Your task to perform on an android device: toggle sleep mode Image 0: 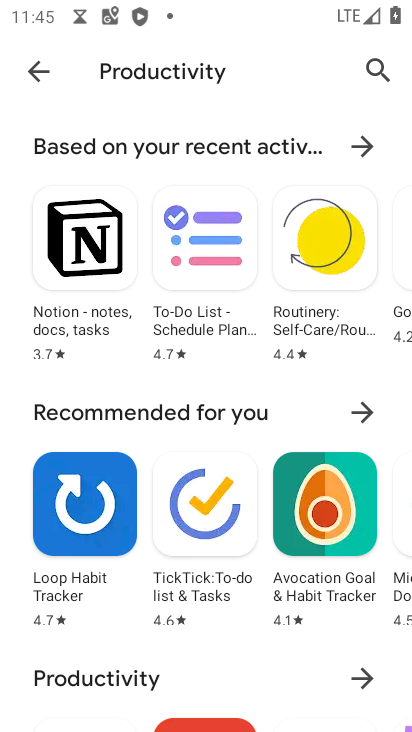
Step 0: press home button
Your task to perform on an android device: toggle sleep mode Image 1: 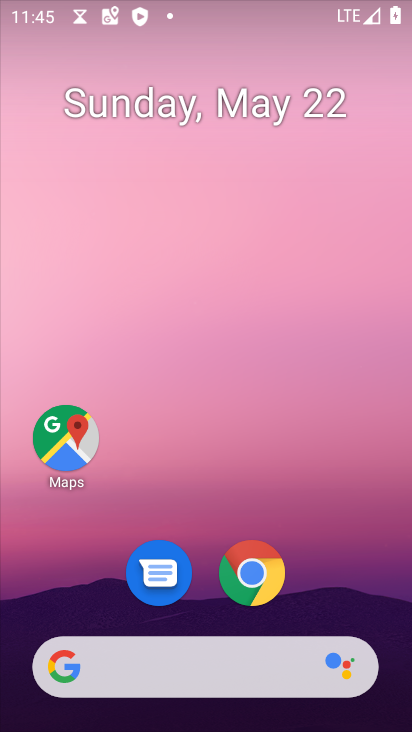
Step 1: drag from (193, 679) to (337, 153)
Your task to perform on an android device: toggle sleep mode Image 2: 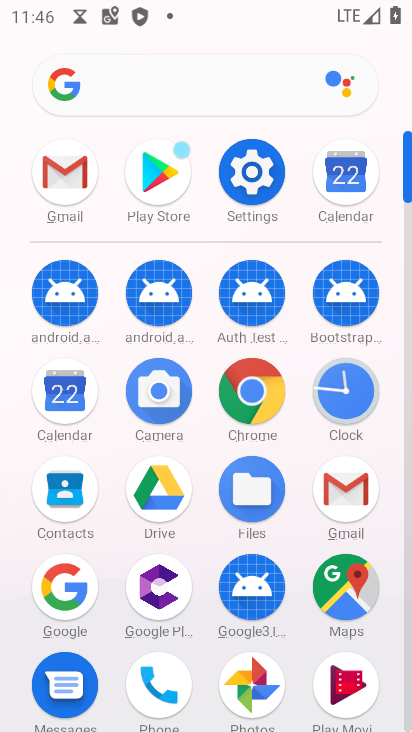
Step 2: click (268, 177)
Your task to perform on an android device: toggle sleep mode Image 3: 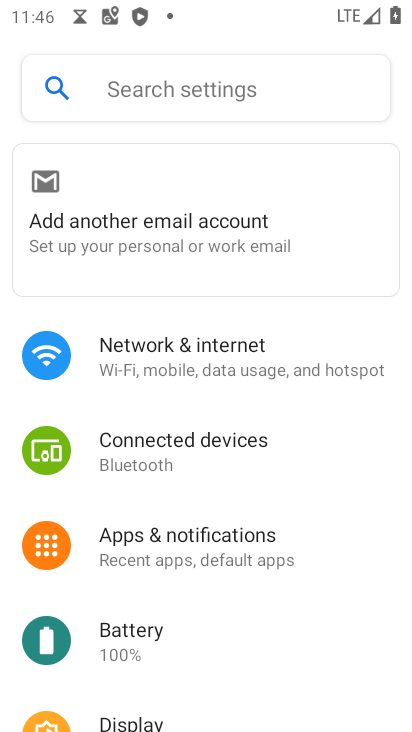
Step 3: drag from (210, 616) to (312, 292)
Your task to perform on an android device: toggle sleep mode Image 4: 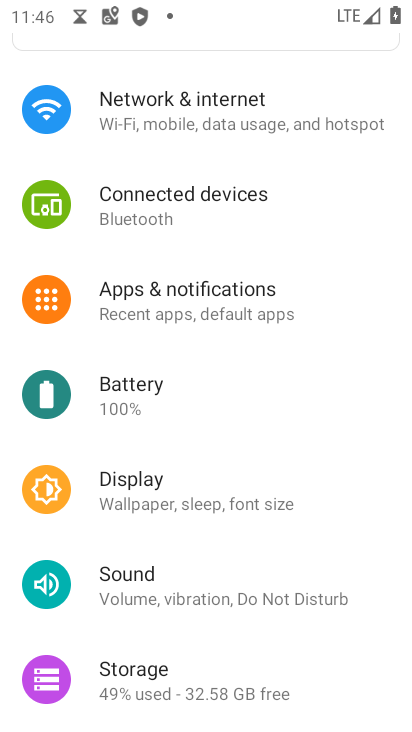
Step 4: click (195, 508)
Your task to perform on an android device: toggle sleep mode Image 5: 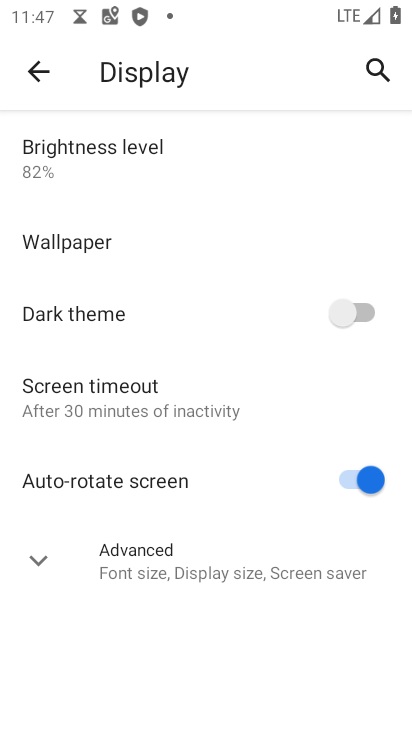
Step 5: task complete